Your task to perform on an android device: open wifi settings Image 0: 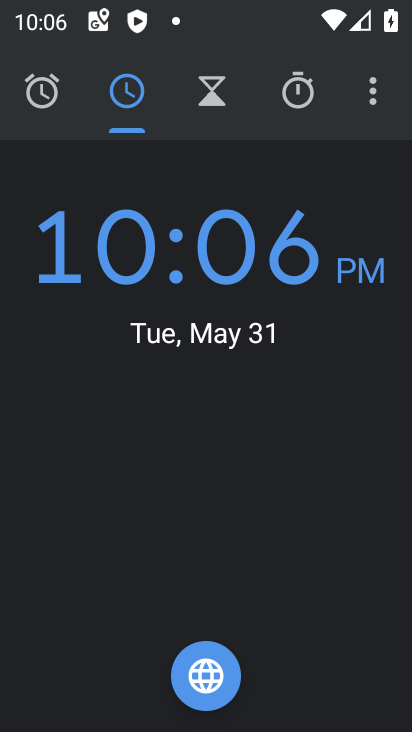
Step 0: press home button
Your task to perform on an android device: open wifi settings Image 1: 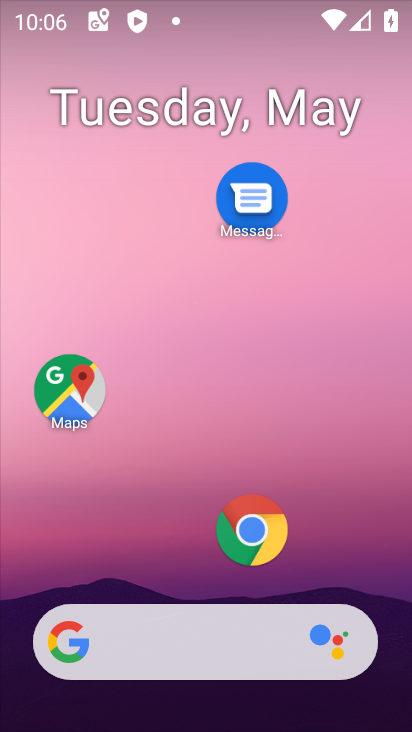
Step 1: drag from (177, 548) to (181, 25)
Your task to perform on an android device: open wifi settings Image 2: 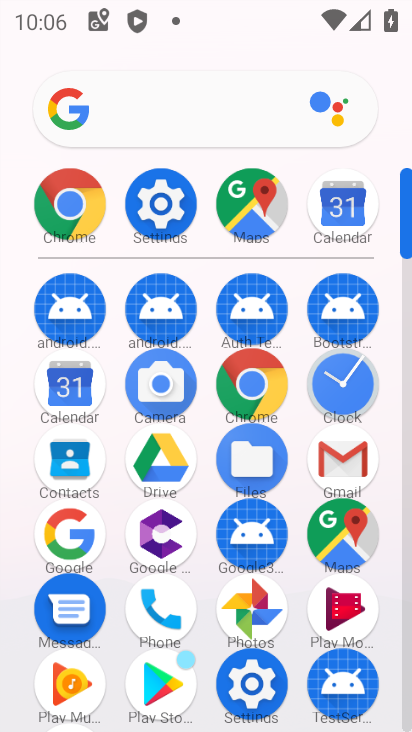
Step 2: click (166, 205)
Your task to perform on an android device: open wifi settings Image 3: 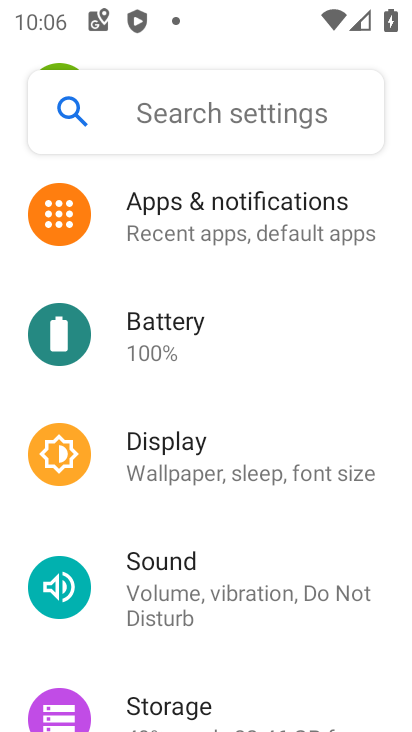
Step 3: drag from (167, 197) to (219, 533)
Your task to perform on an android device: open wifi settings Image 4: 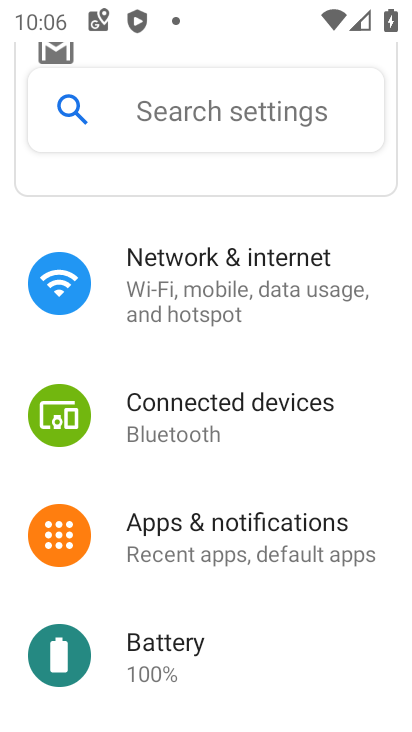
Step 4: click (181, 293)
Your task to perform on an android device: open wifi settings Image 5: 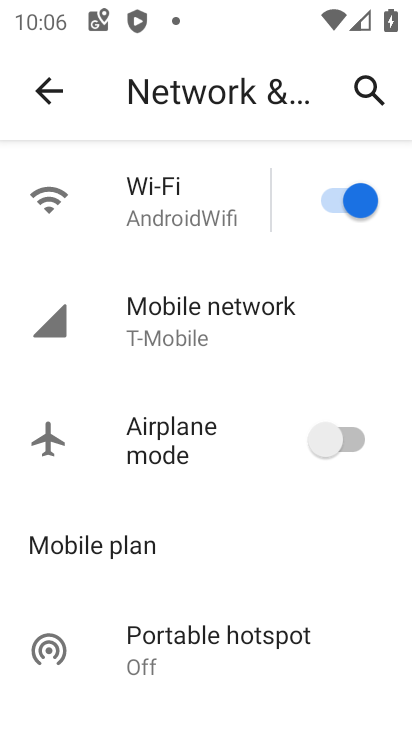
Step 5: click (194, 231)
Your task to perform on an android device: open wifi settings Image 6: 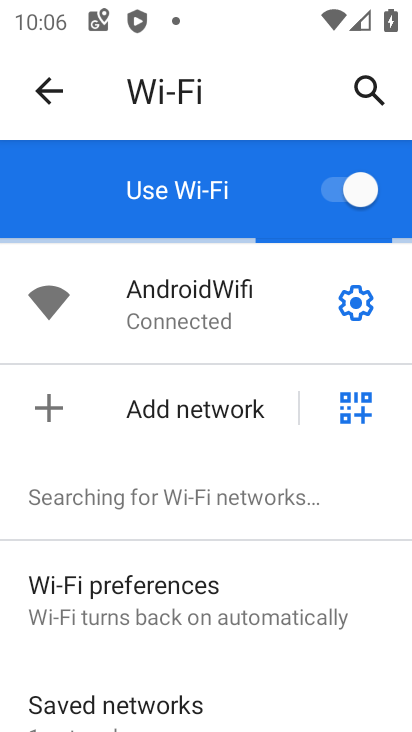
Step 6: task complete